Your task to perform on an android device: Open Google Image 0: 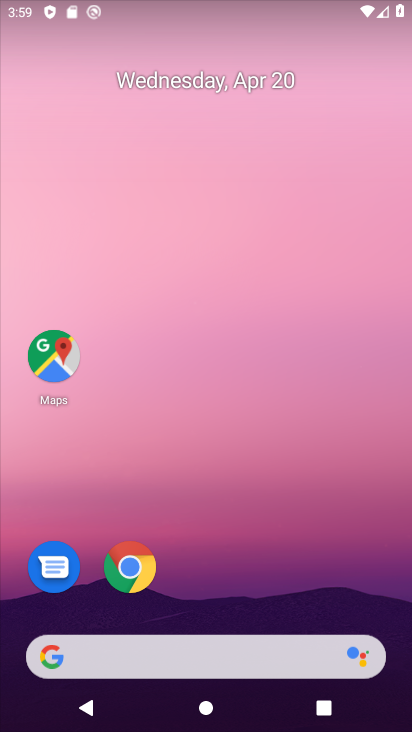
Step 0: drag from (189, 618) to (334, 105)
Your task to perform on an android device: Open Google Image 1: 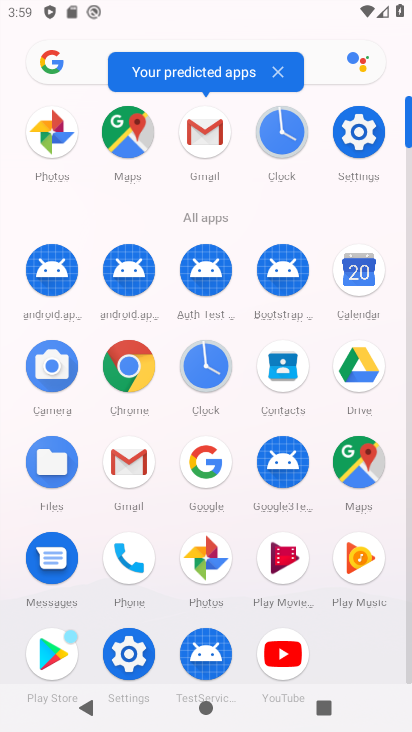
Step 1: click (209, 483)
Your task to perform on an android device: Open Google Image 2: 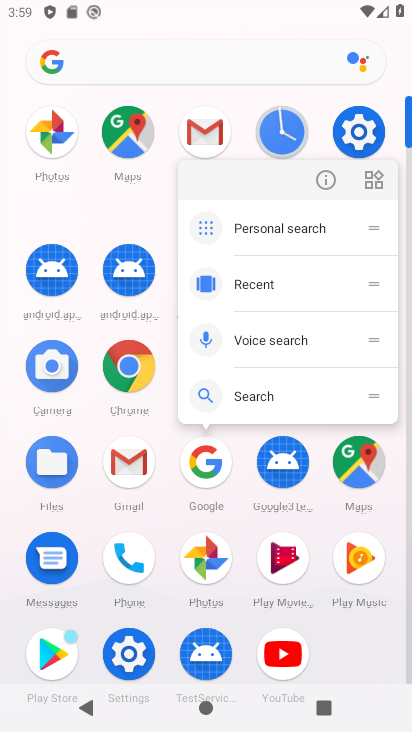
Step 2: click (201, 477)
Your task to perform on an android device: Open Google Image 3: 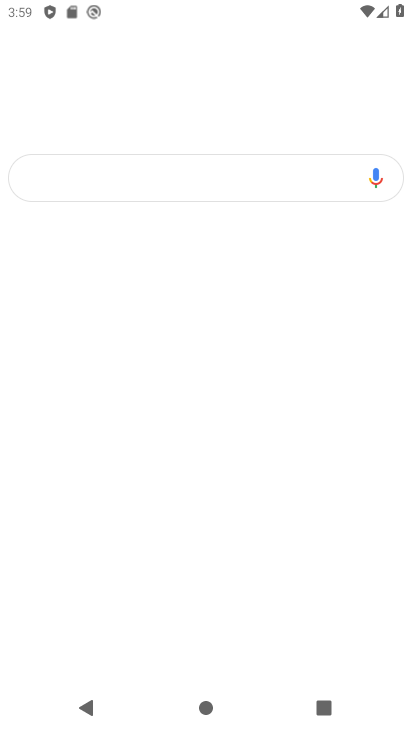
Step 3: click (139, 556)
Your task to perform on an android device: Open Google Image 4: 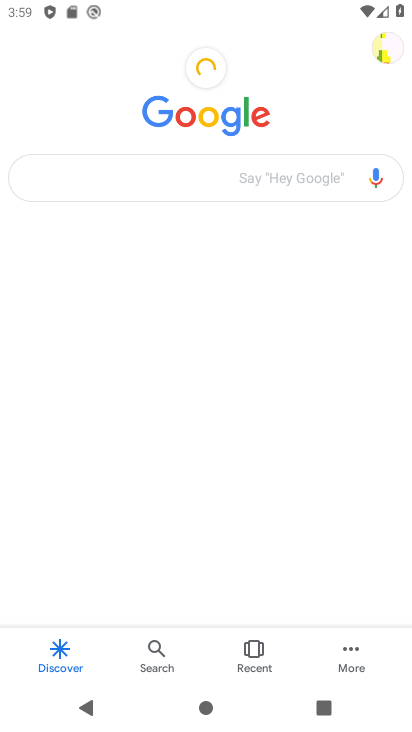
Step 4: task complete